Your task to perform on an android device: add a contact Image 0: 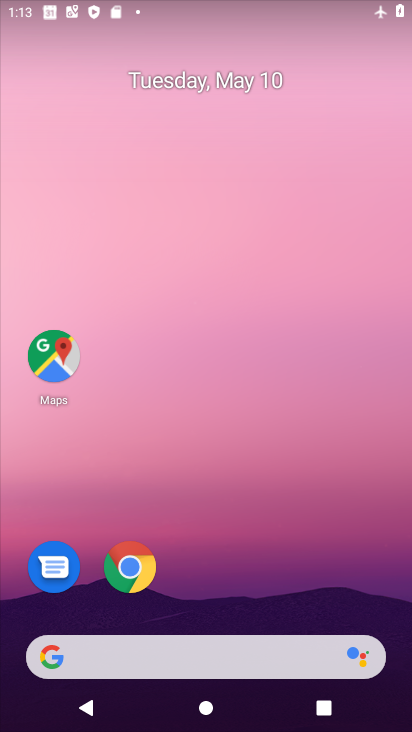
Step 0: drag from (383, 648) to (366, 92)
Your task to perform on an android device: add a contact Image 1: 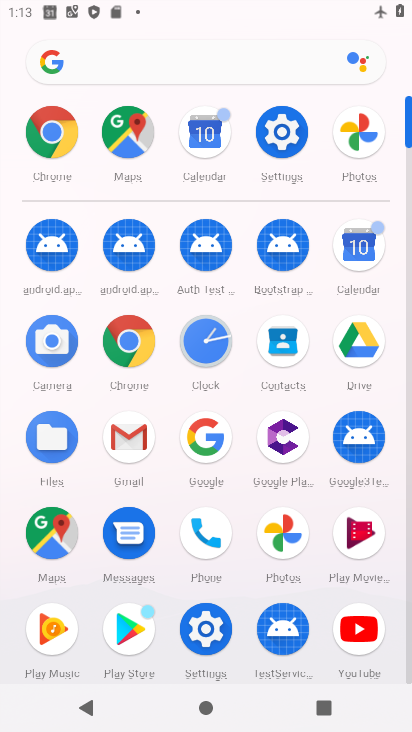
Step 1: click (276, 360)
Your task to perform on an android device: add a contact Image 2: 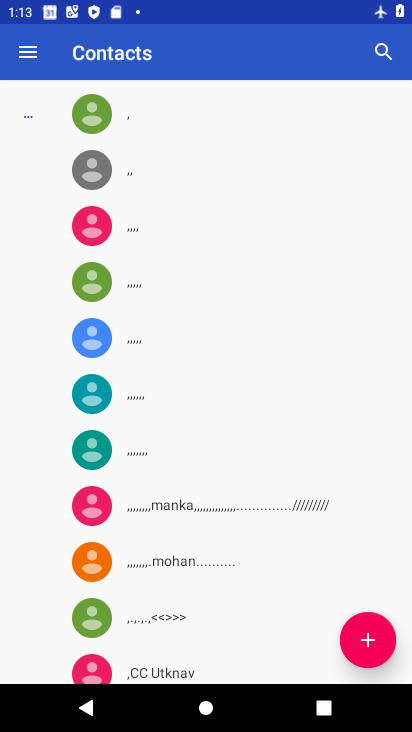
Step 2: click (373, 654)
Your task to perform on an android device: add a contact Image 3: 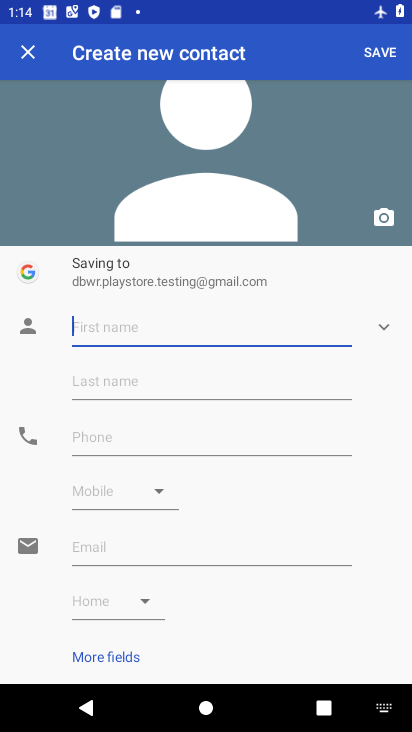
Step 3: type "pandit"
Your task to perform on an android device: add a contact Image 4: 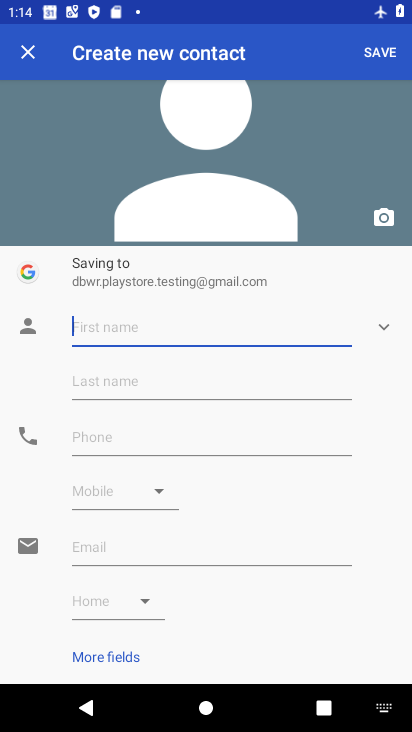
Step 4: click (363, 49)
Your task to perform on an android device: add a contact Image 5: 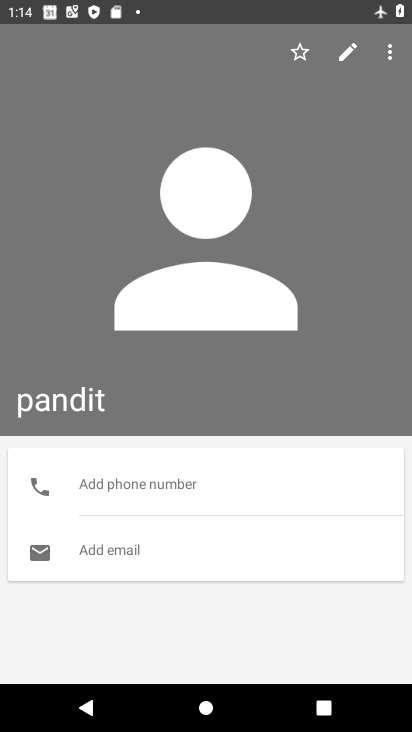
Step 5: task complete